Your task to perform on an android device: What's the weather going to be this weekend? Image 0: 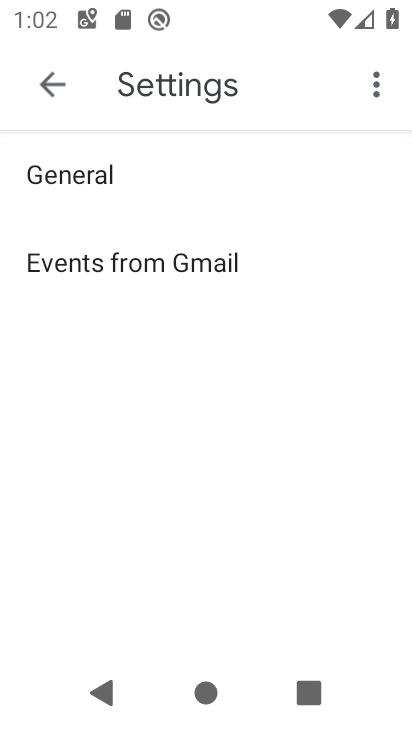
Step 0: press home button
Your task to perform on an android device: What's the weather going to be this weekend? Image 1: 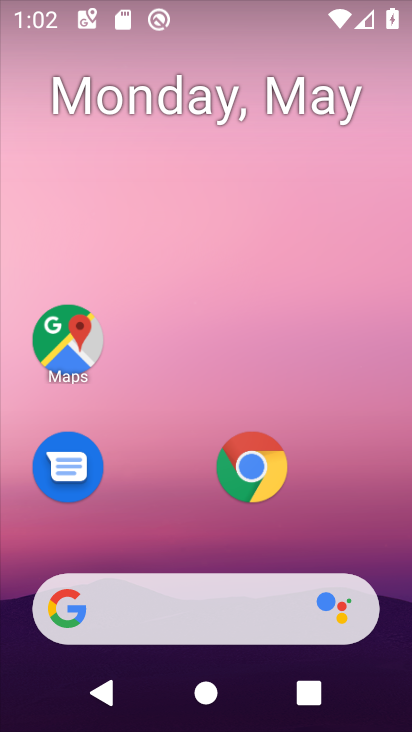
Step 1: drag from (218, 557) to (266, 153)
Your task to perform on an android device: What's the weather going to be this weekend? Image 2: 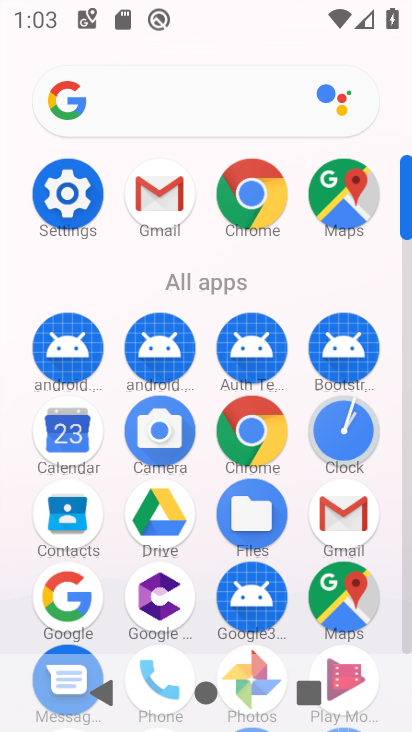
Step 2: click (175, 109)
Your task to perform on an android device: What's the weather going to be this weekend? Image 3: 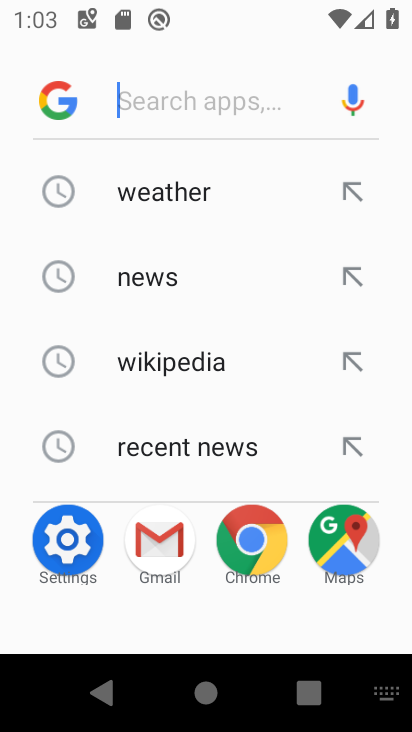
Step 3: type "weather going to be this weekend?"
Your task to perform on an android device: What's the weather going to be this weekend? Image 4: 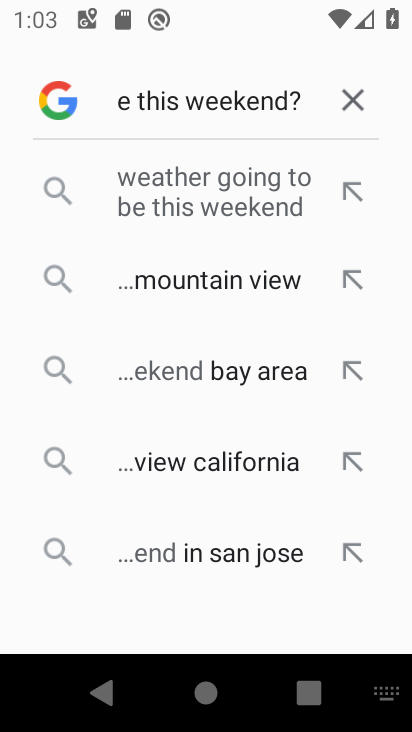
Step 4: click (196, 167)
Your task to perform on an android device: What's the weather going to be this weekend? Image 5: 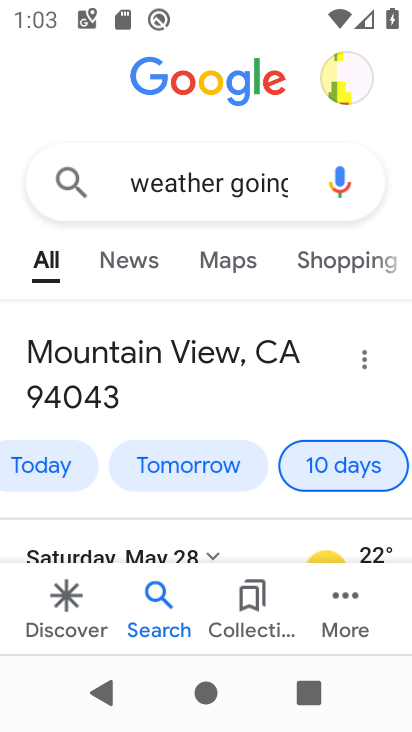
Step 5: task complete